Your task to perform on an android device: Open Google Chrome and click the shortcut for Amazon.com Image 0: 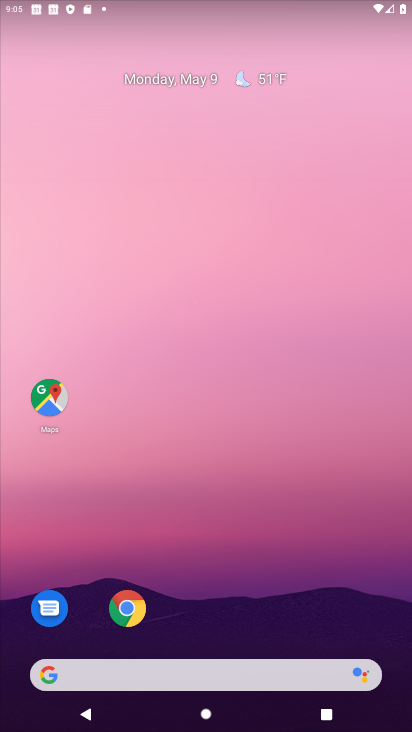
Step 0: drag from (310, 605) to (373, 13)
Your task to perform on an android device: Open Google Chrome and click the shortcut for Amazon.com Image 1: 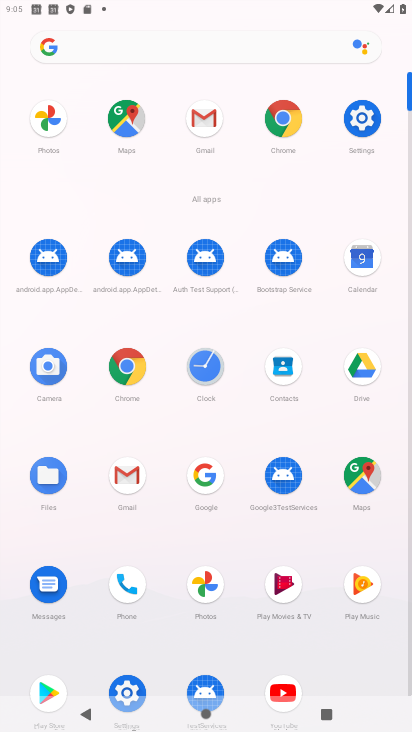
Step 1: click (275, 133)
Your task to perform on an android device: Open Google Chrome and click the shortcut for Amazon.com Image 2: 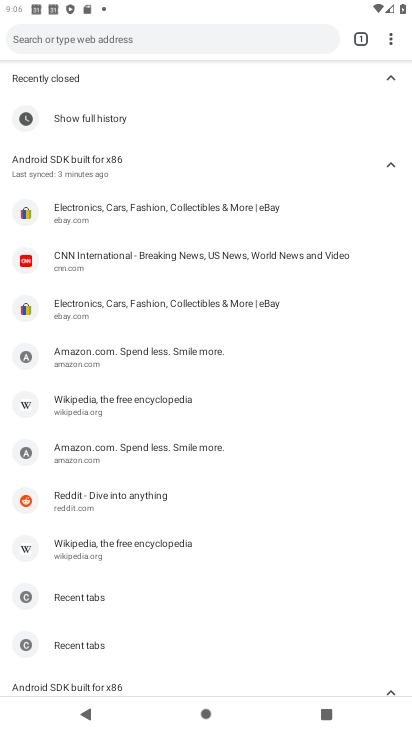
Step 2: click (105, 43)
Your task to perform on an android device: Open Google Chrome and click the shortcut for Amazon.com Image 3: 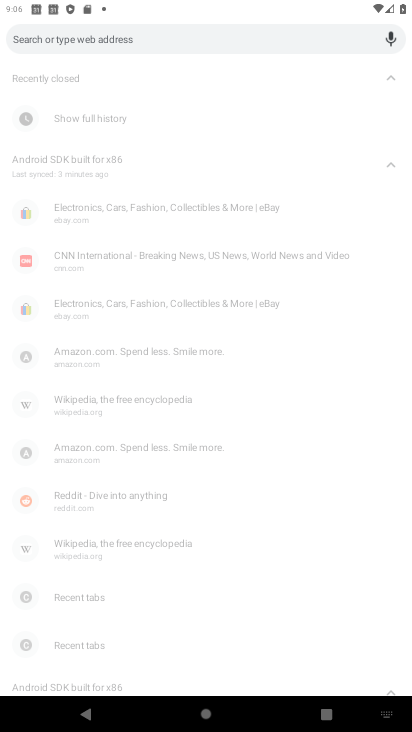
Step 3: type "amazon"
Your task to perform on an android device: Open Google Chrome and click the shortcut for Amazon.com Image 4: 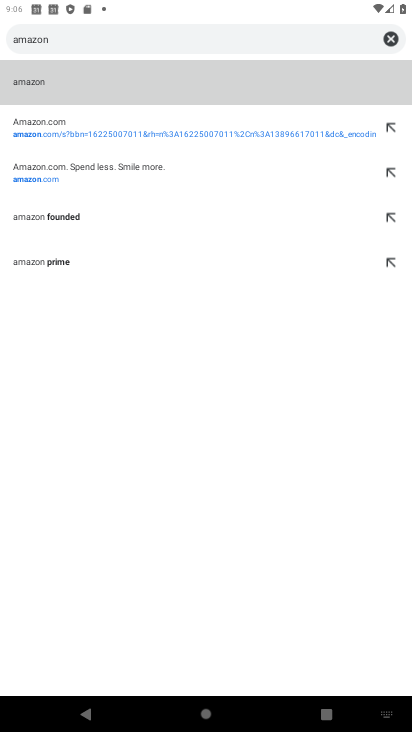
Step 4: click (21, 87)
Your task to perform on an android device: Open Google Chrome and click the shortcut for Amazon.com Image 5: 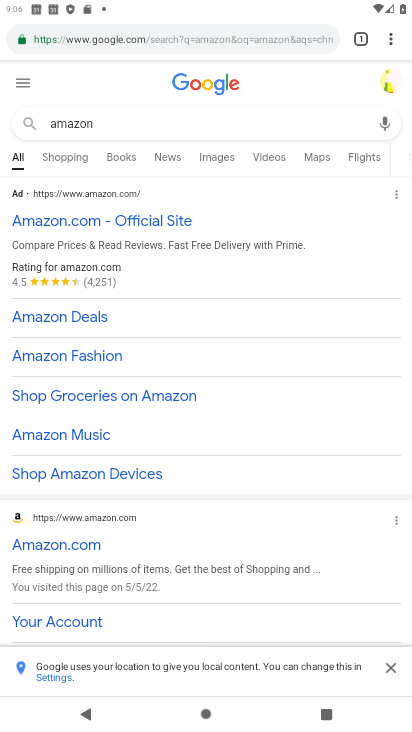
Step 5: click (95, 226)
Your task to perform on an android device: Open Google Chrome and click the shortcut for Amazon.com Image 6: 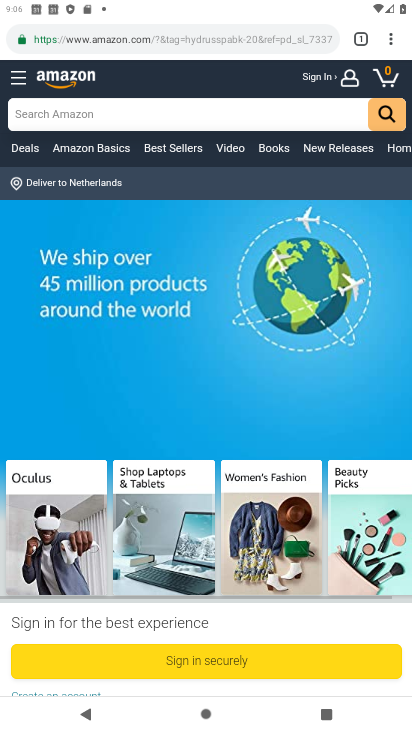
Step 6: task complete